Your task to perform on an android device: empty trash in google photos Image 0: 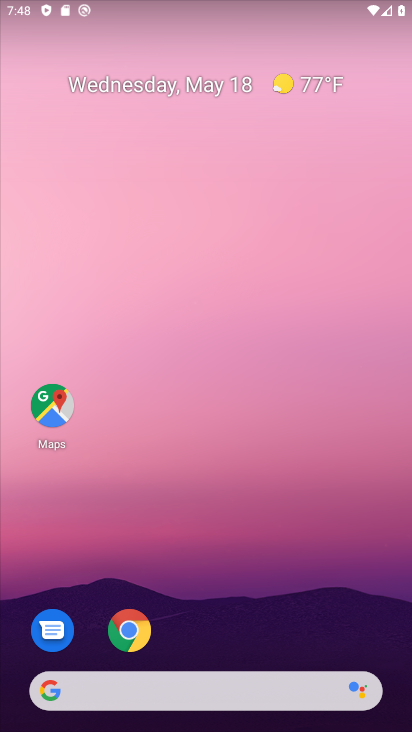
Step 0: drag from (237, 579) to (271, 179)
Your task to perform on an android device: empty trash in google photos Image 1: 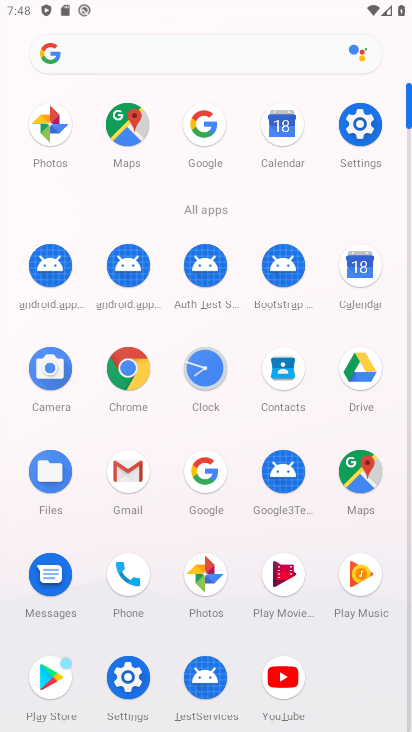
Step 1: click (44, 140)
Your task to perform on an android device: empty trash in google photos Image 2: 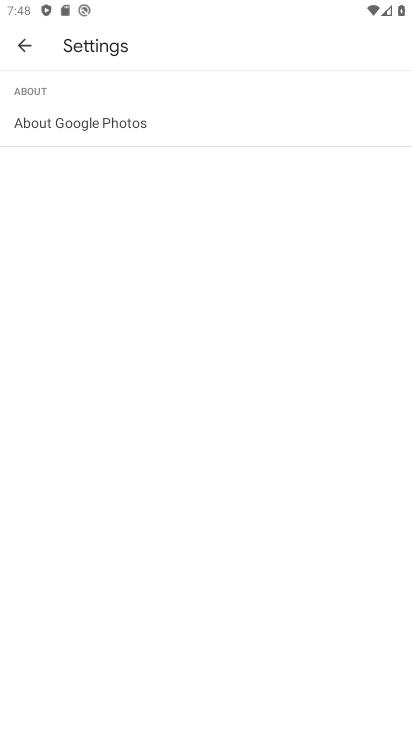
Step 2: press back button
Your task to perform on an android device: empty trash in google photos Image 3: 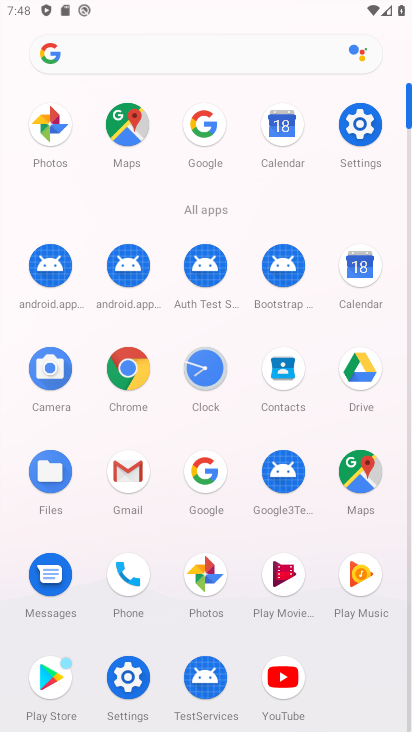
Step 3: click (65, 126)
Your task to perform on an android device: empty trash in google photos Image 4: 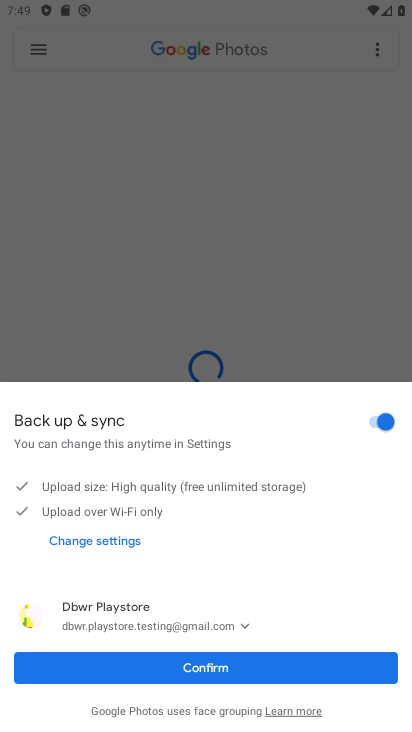
Step 4: click (235, 668)
Your task to perform on an android device: empty trash in google photos Image 5: 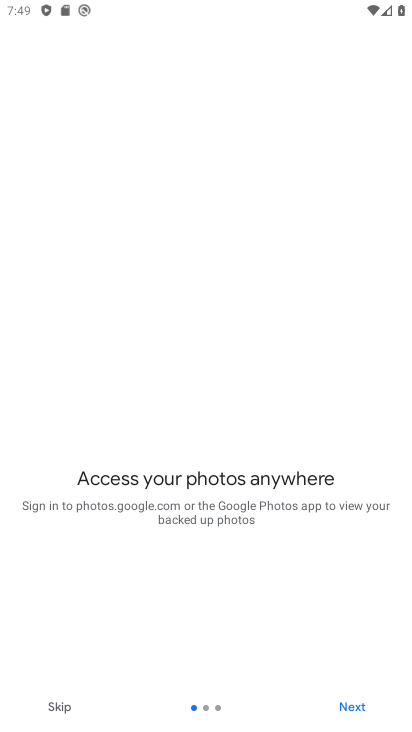
Step 5: click (59, 708)
Your task to perform on an android device: empty trash in google photos Image 6: 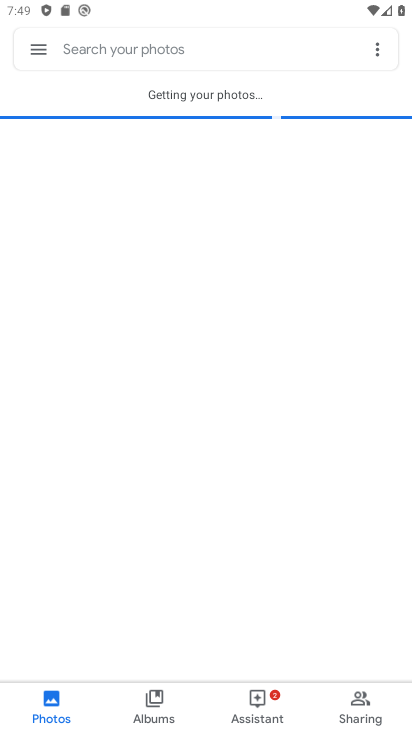
Step 6: click (43, 57)
Your task to perform on an android device: empty trash in google photos Image 7: 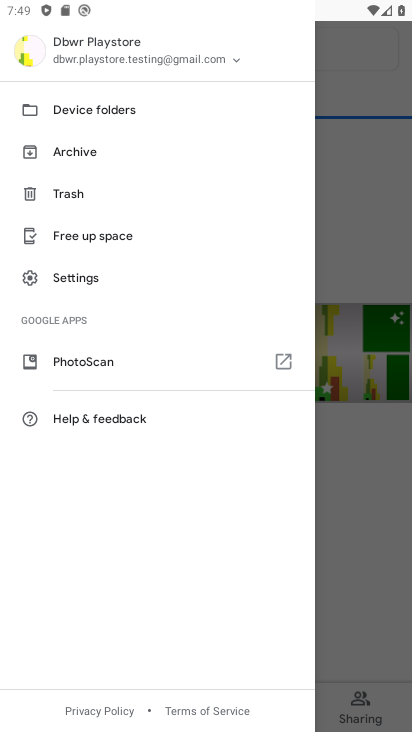
Step 7: click (85, 194)
Your task to perform on an android device: empty trash in google photos Image 8: 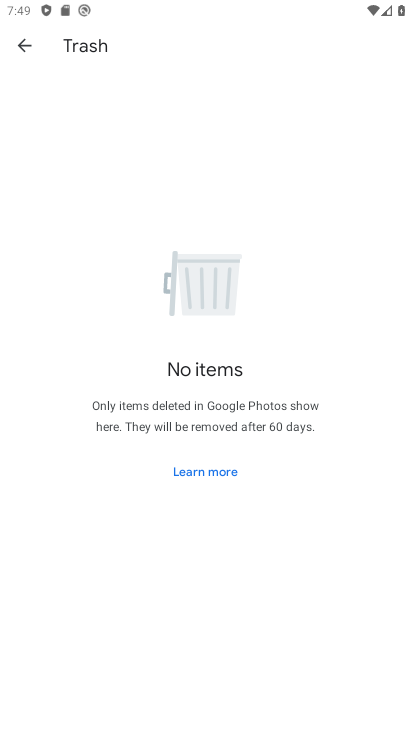
Step 8: task complete